Your task to perform on an android device: see sites visited before in the chrome app Image 0: 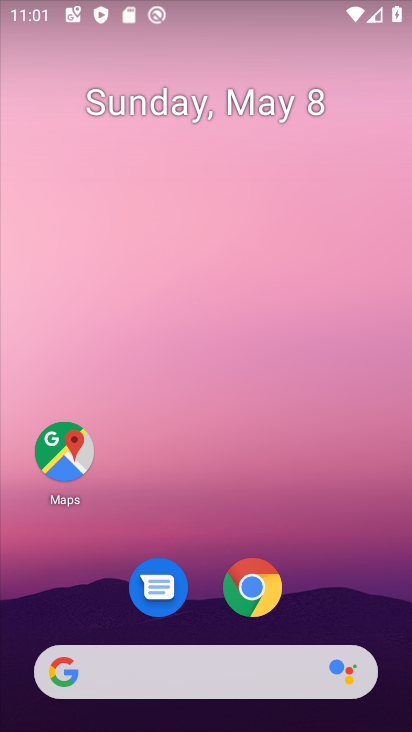
Step 0: drag from (362, 540) to (163, 3)
Your task to perform on an android device: see sites visited before in the chrome app Image 1: 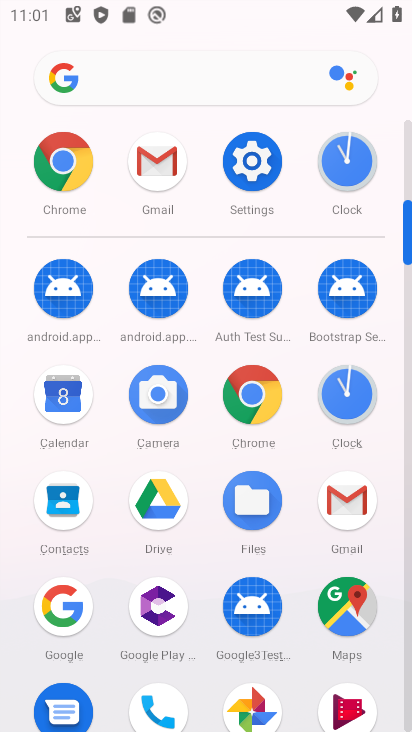
Step 1: click (254, 407)
Your task to perform on an android device: see sites visited before in the chrome app Image 2: 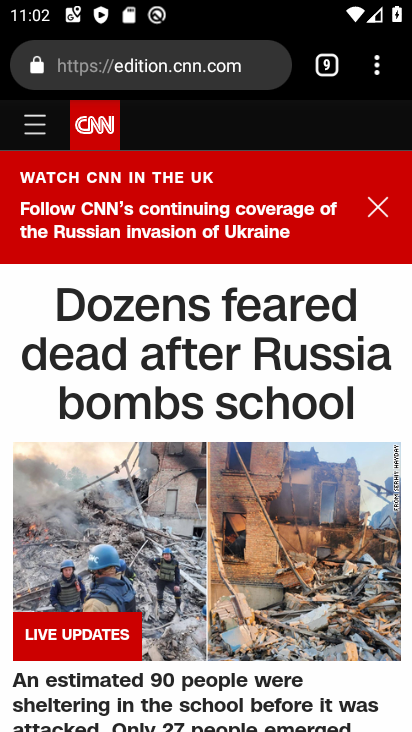
Step 2: click (378, 73)
Your task to perform on an android device: see sites visited before in the chrome app Image 3: 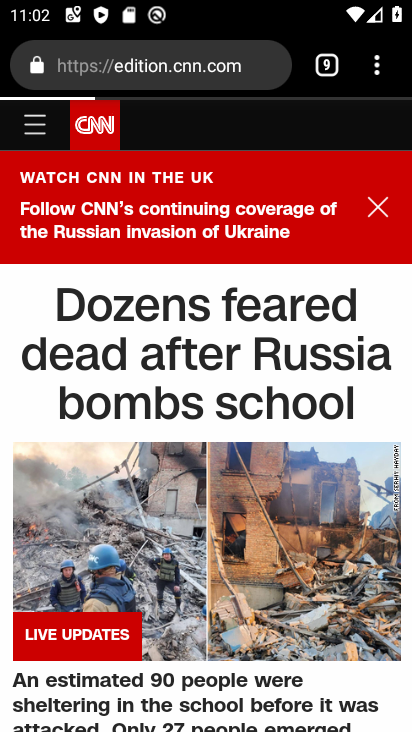
Step 3: click (375, 71)
Your task to perform on an android device: see sites visited before in the chrome app Image 4: 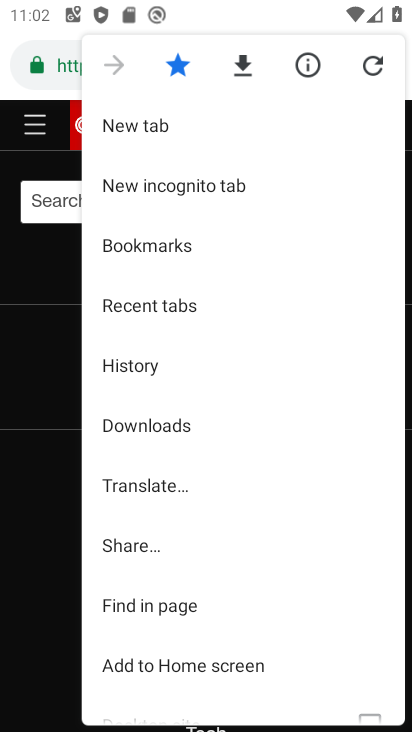
Step 4: click (144, 299)
Your task to perform on an android device: see sites visited before in the chrome app Image 5: 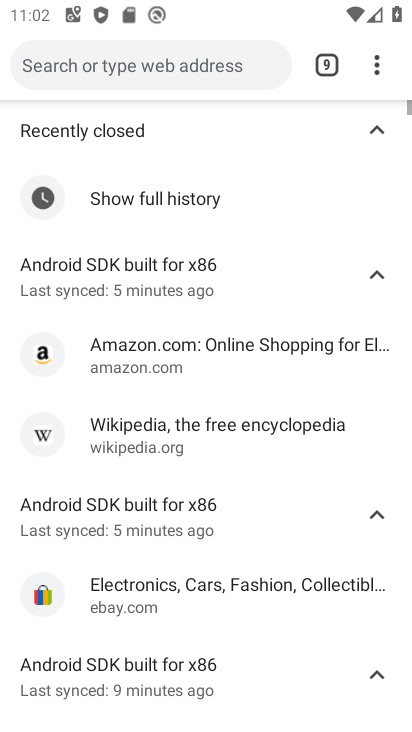
Step 5: click (144, 302)
Your task to perform on an android device: see sites visited before in the chrome app Image 6: 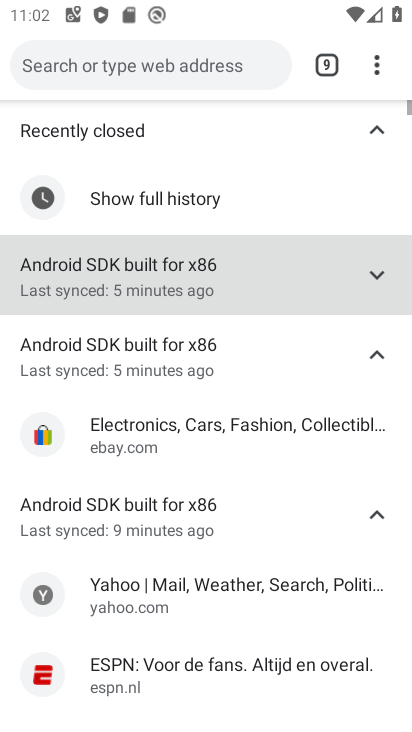
Step 6: click (144, 302)
Your task to perform on an android device: see sites visited before in the chrome app Image 7: 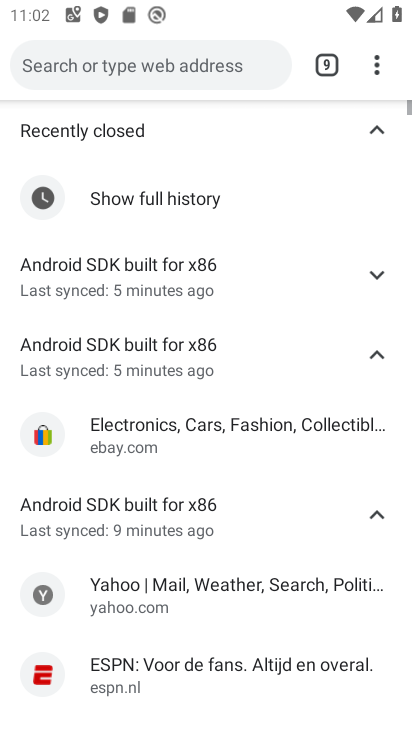
Step 7: click (145, 301)
Your task to perform on an android device: see sites visited before in the chrome app Image 8: 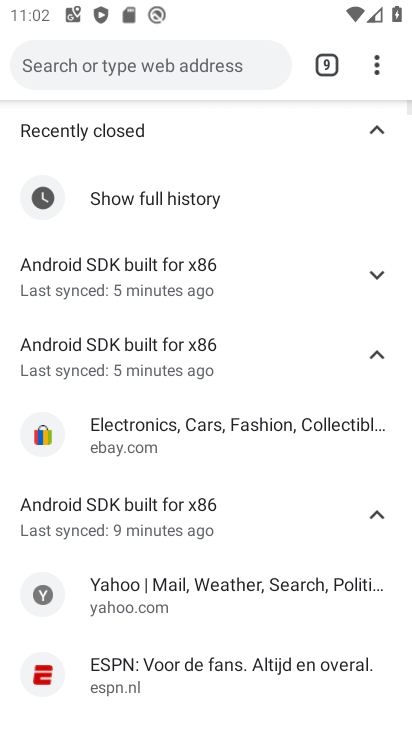
Step 8: task complete